Your task to perform on an android device: Search for the best selling phone on AliExpress Image 0: 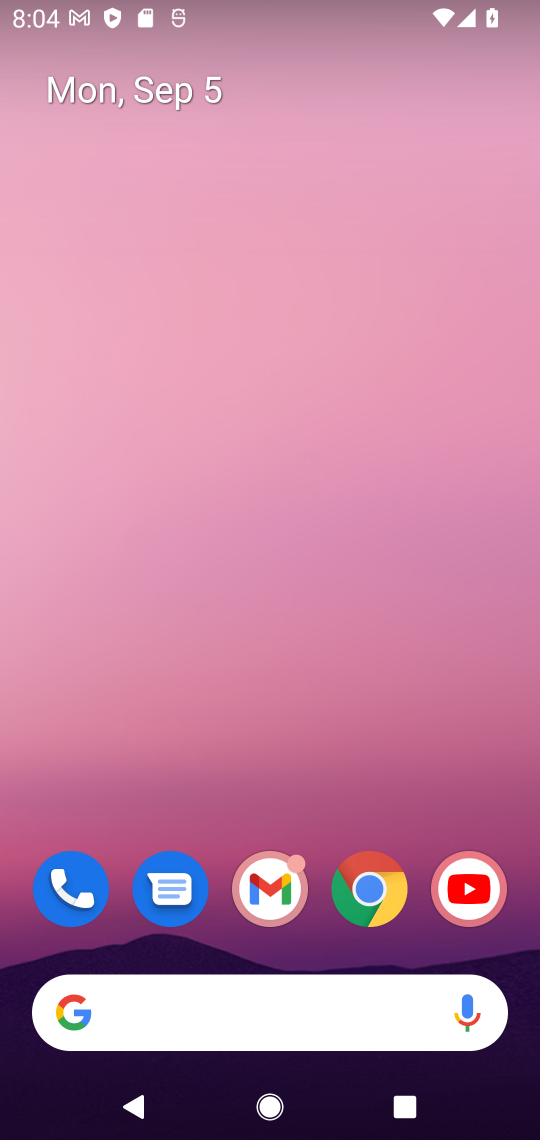
Step 0: click (222, 1015)
Your task to perform on an android device: Search for the best selling phone on AliExpress Image 1: 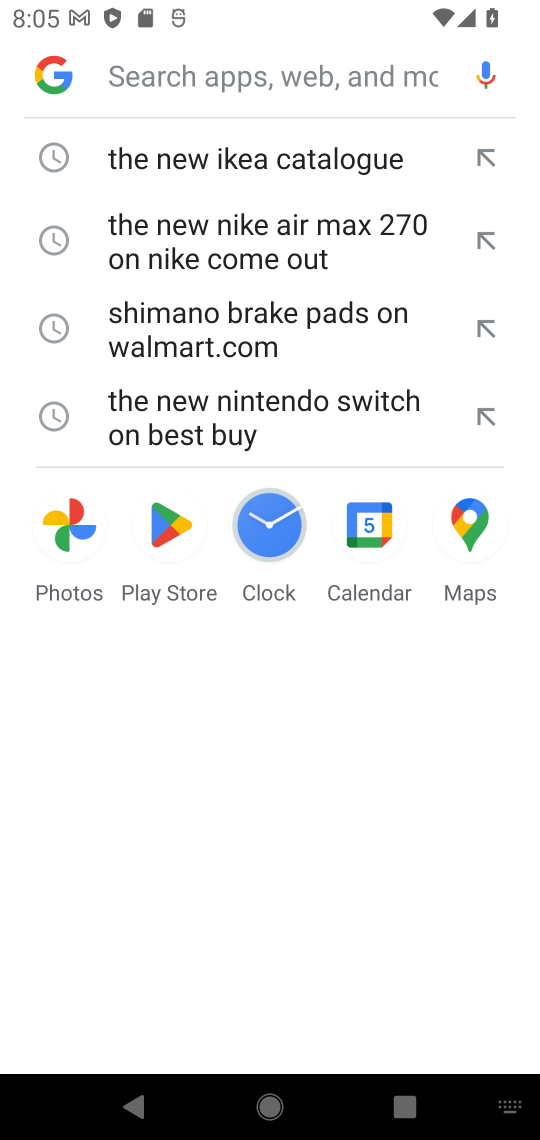
Step 1: type " the best selling phone on AliExpress"
Your task to perform on an android device: Search for the best selling phone on AliExpress Image 2: 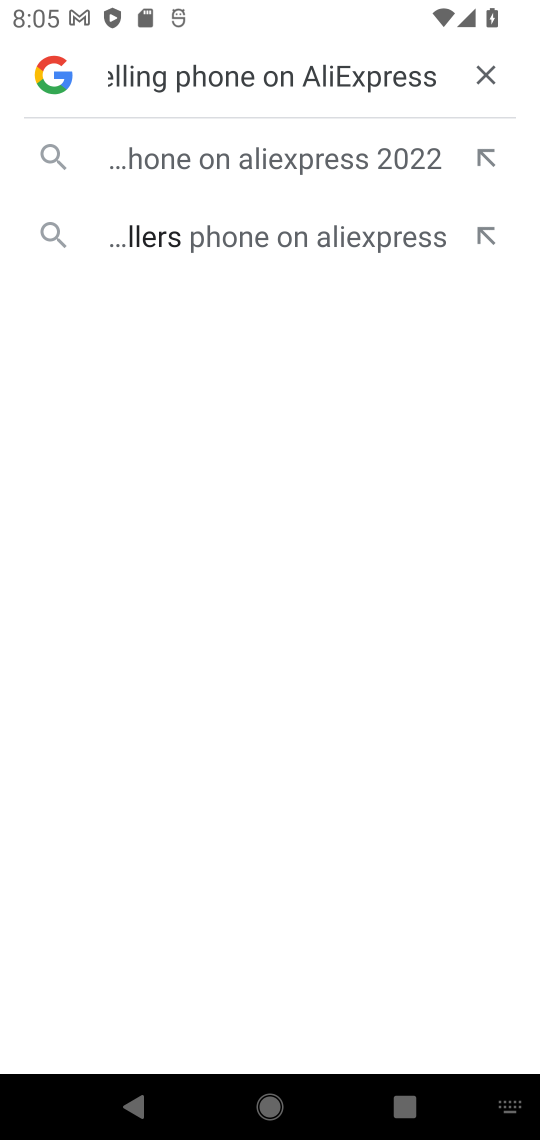
Step 2: click (240, 249)
Your task to perform on an android device: Search for the best selling phone on AliExpress Image 3: 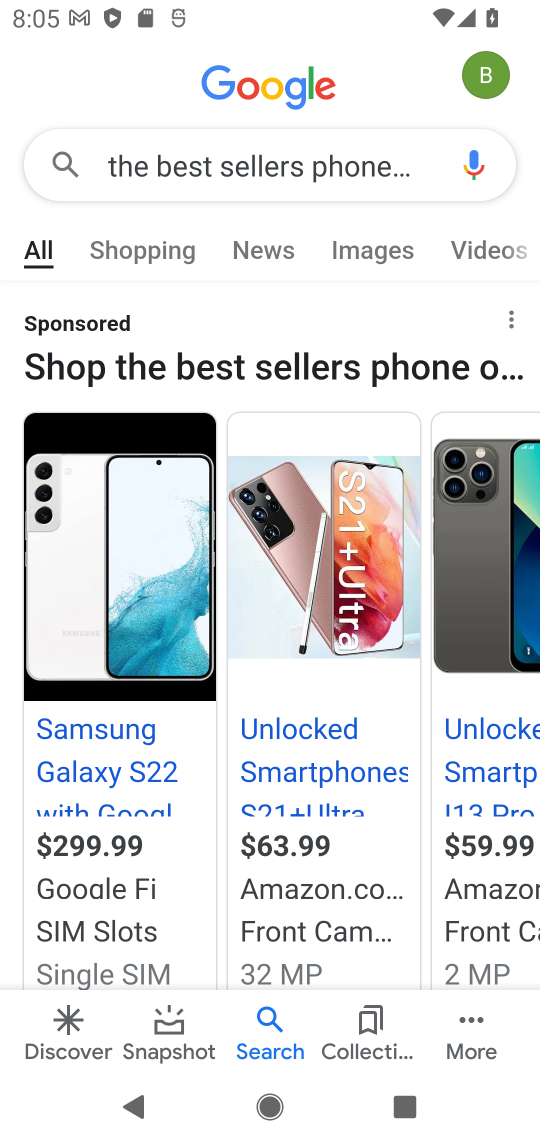
Step 3: task complete